Your task to perform on an android device: uninstall "Google Play Games" Image 0: 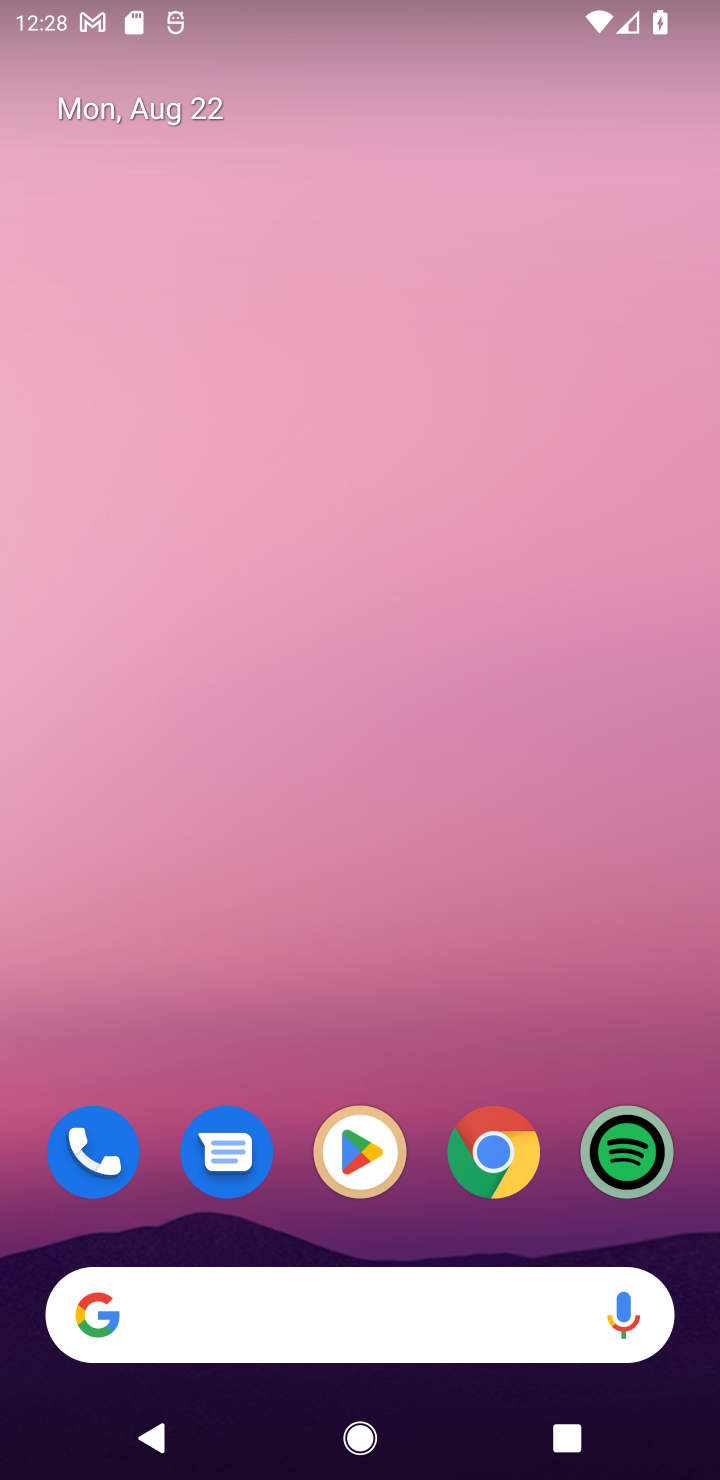
Step 0: click (358, 1165)
Your task to perform on an android device: uninstall "Google Play Games" Image 1: 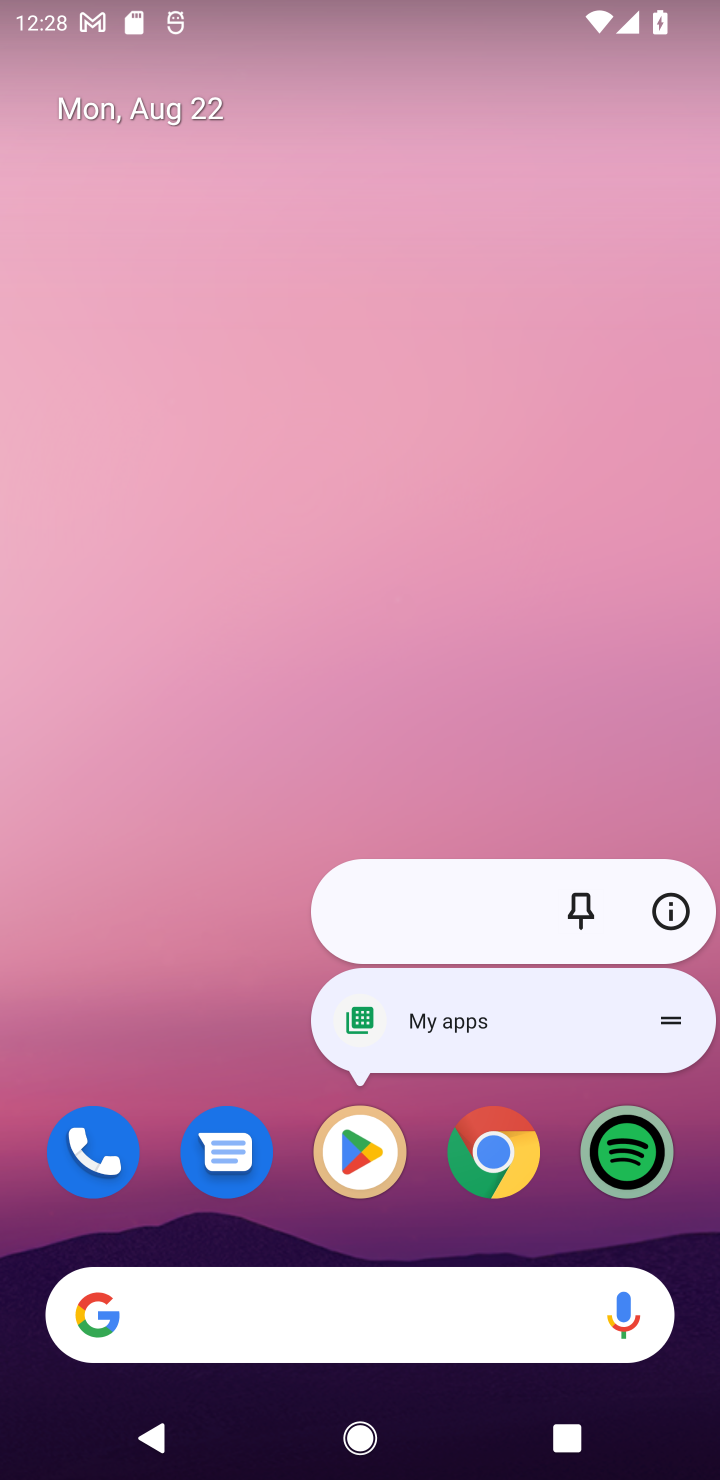
Step 1: click (344, 1139)
Your task to perform on an android device: uninstall "Google Play Games" Image 2: 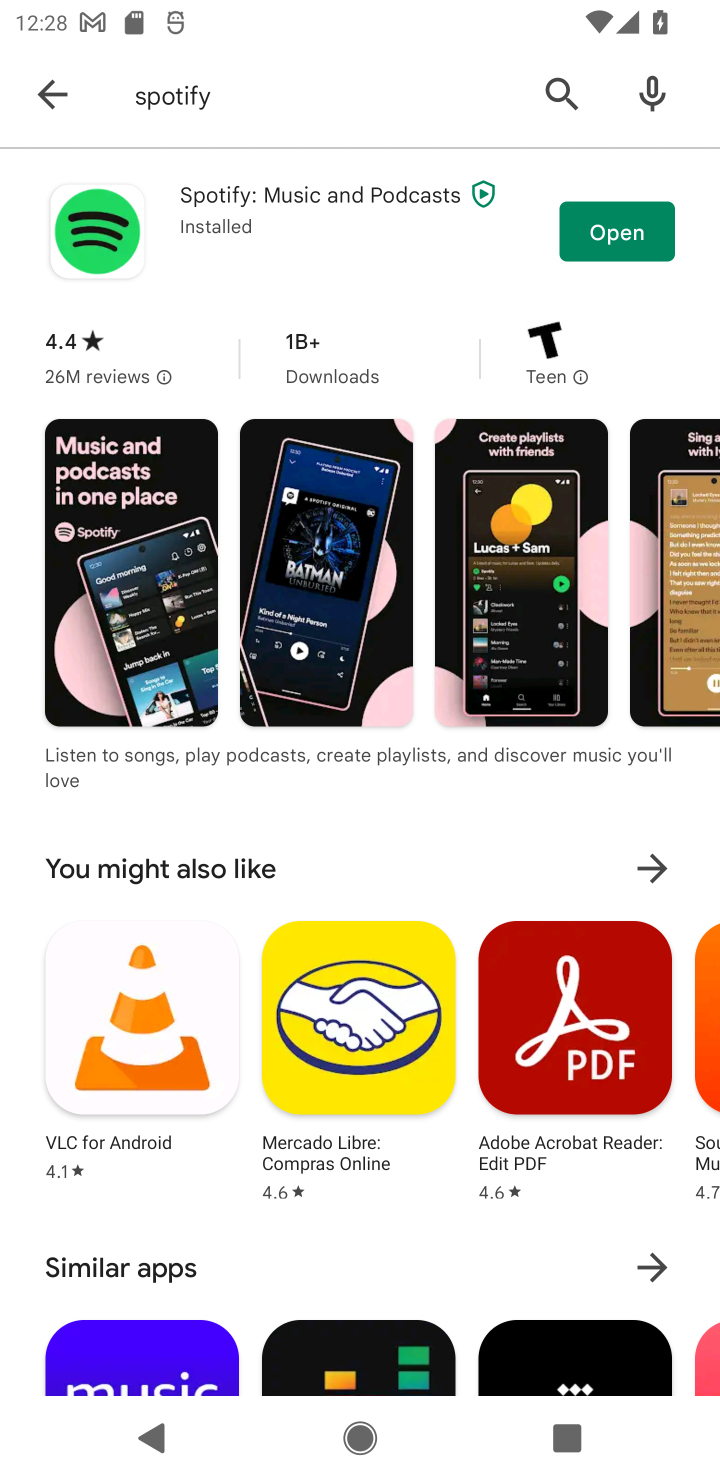
Step 2: click (45, 103)
Your task to perform on an android device: uninstall "Google Play Games" Image 3: 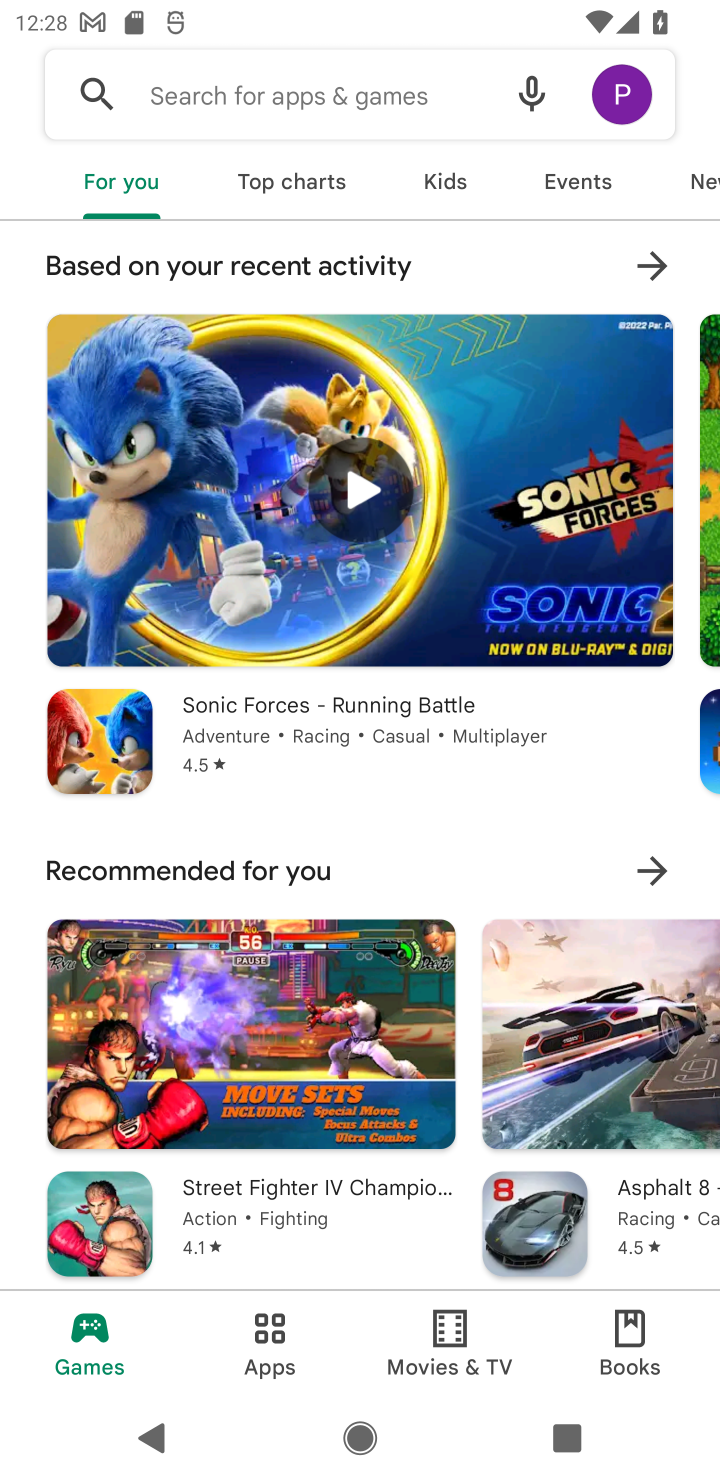
Step 3: click (204, 103)
Your task to perform on an android device: uninstall "Google Play Games" Image 4: 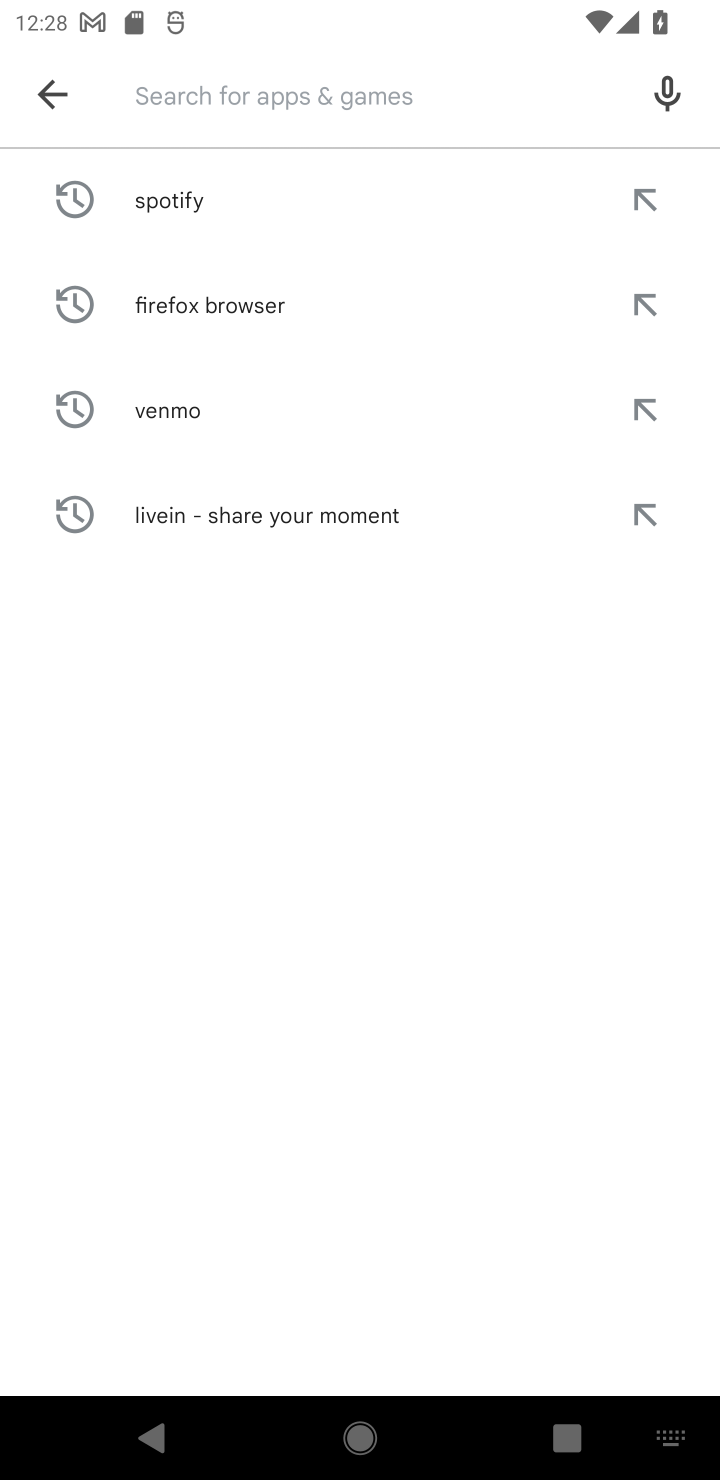
Step 4: type "Google Play Games"
Your task to perform on an android device: uninstall "Google Play Games" Image 5: 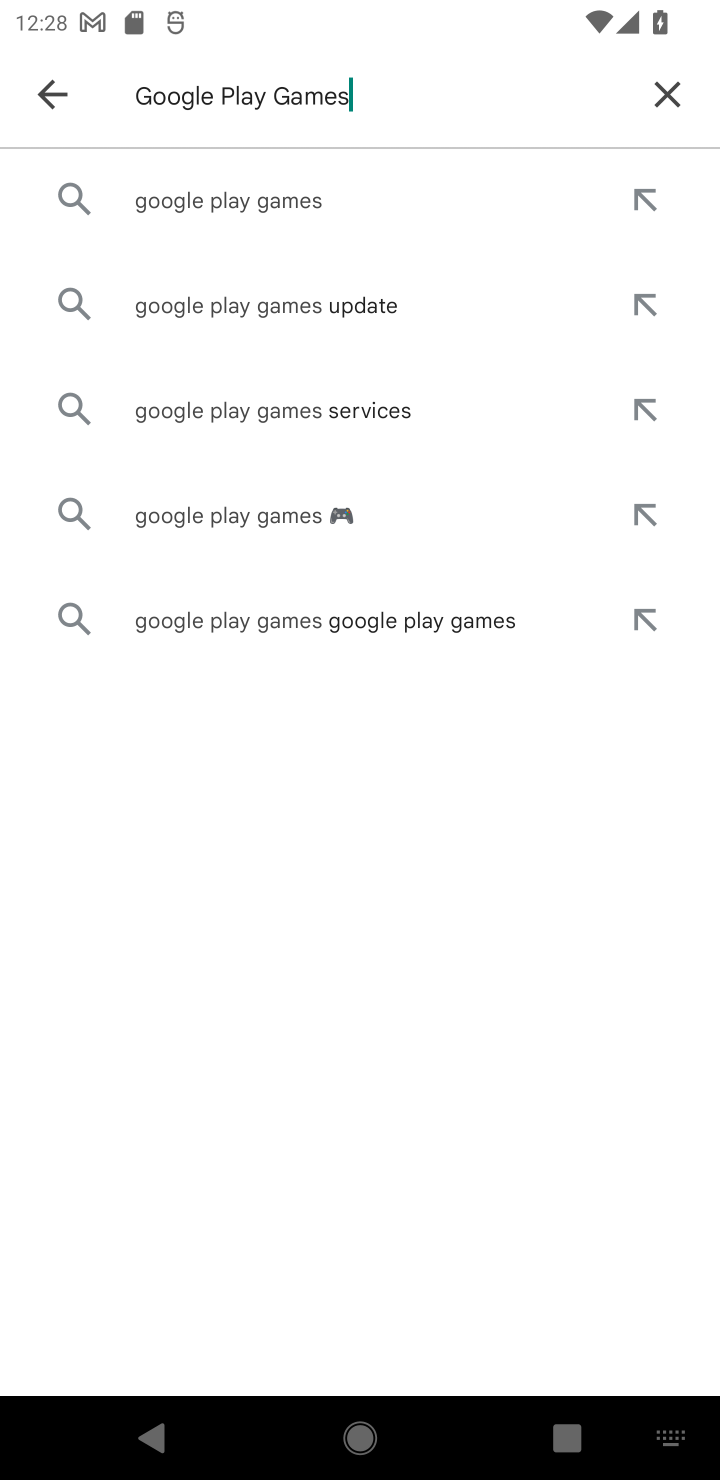
Step 5: click (227, 209)
Your task to perform on an android device: uninstall "Google Play Games" Image 6: 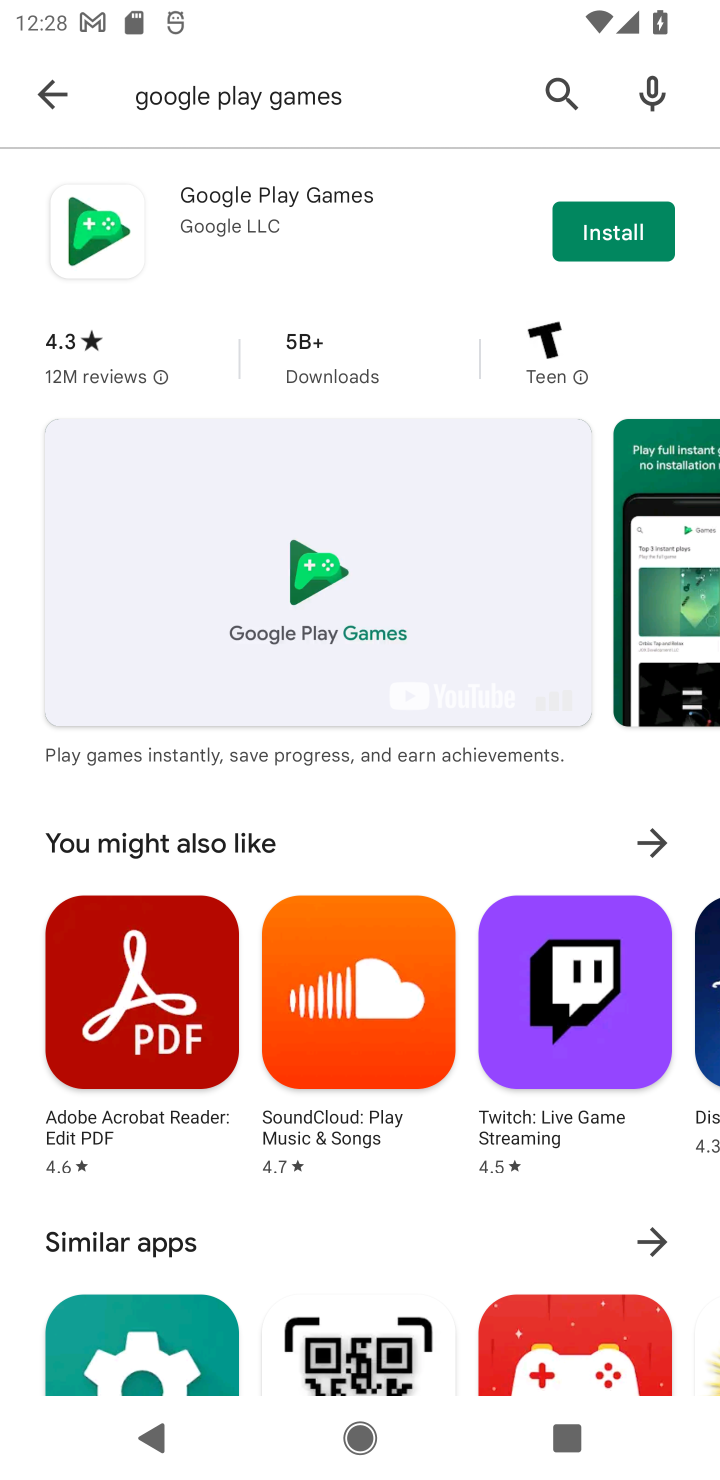
Step 6: task complete